Your task to perform on an android device: Go to Android settings Image 0: 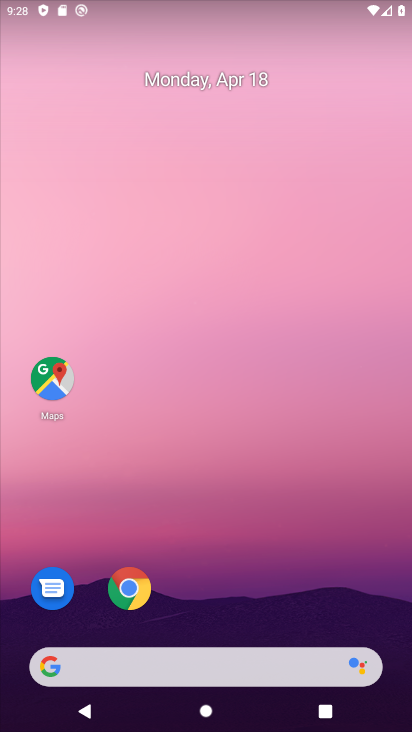
Step 0: drag from (286, 591) to (308, 68)
Your task to perform on an android device: Go to Android settings Image 1: 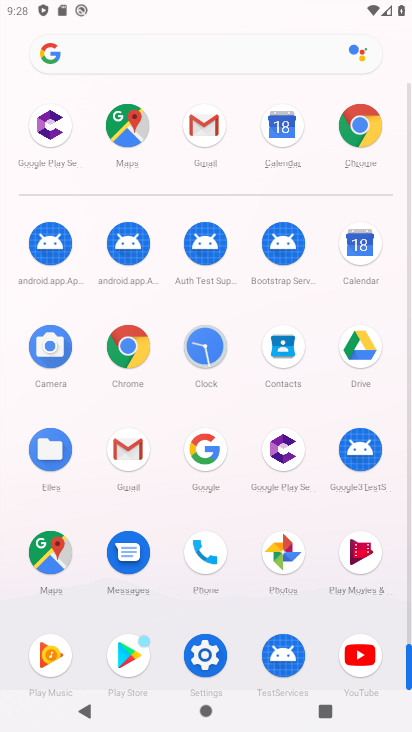
Step 1: click (214, 658)
Your task to perform on an android device: Go to Android settings Image 2: 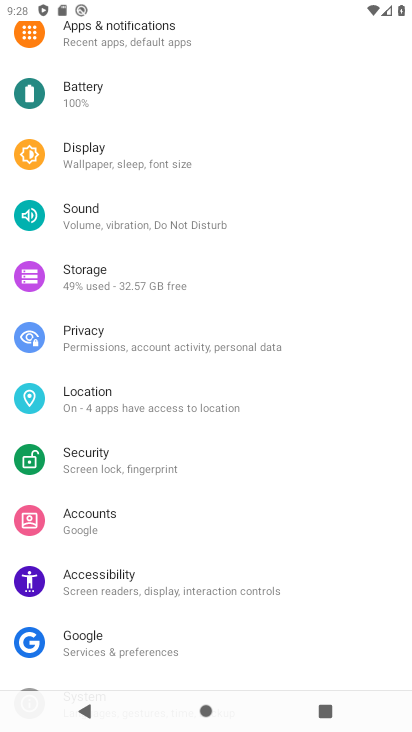
Step 2: drag from (324, 595) to (328, 188)
Your task to perform on an android device: Go to Android settings Image 3: 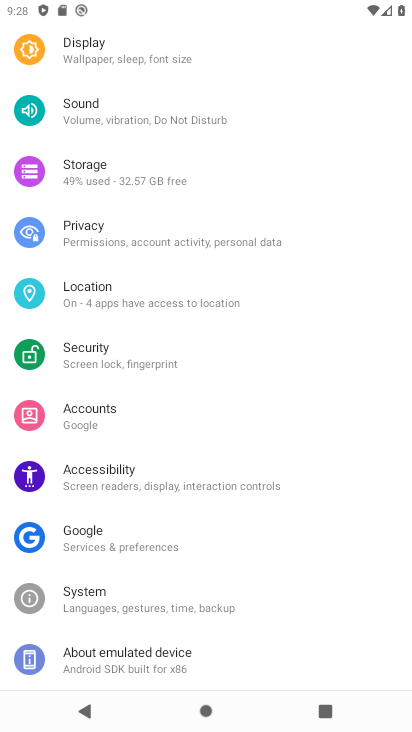
Step 3: click (141, 660)
Your task to perform on an android device: Go to Android settings Image 4: 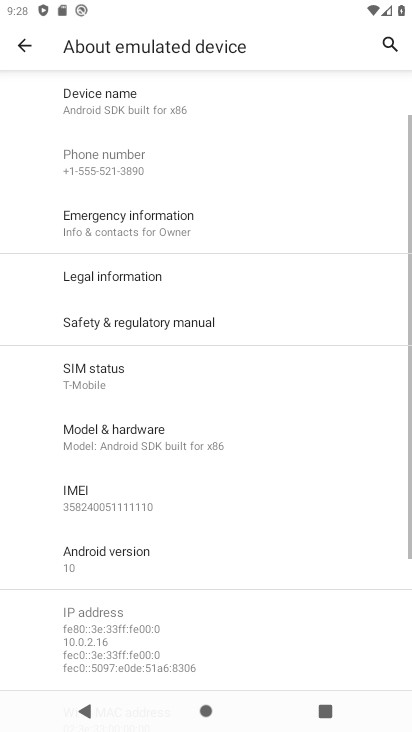
Step 4: drag from (255, 543) to (267, 348)
Your task to perform on an android device: Go to Android settings Image 5: 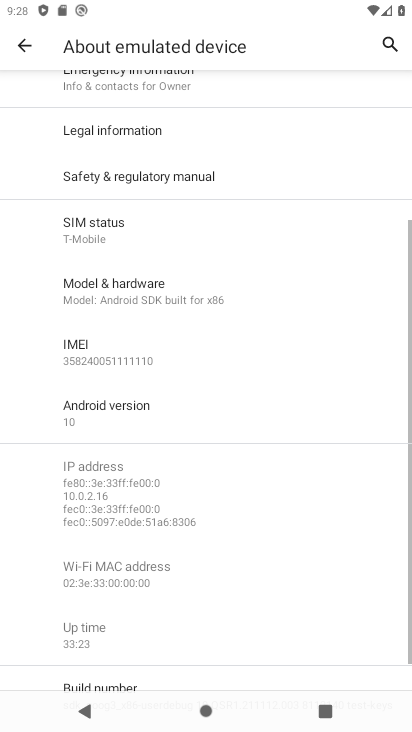
Step 5: click (118, 409)
Your task to perform on an android device: Go to Android settings Image 6: 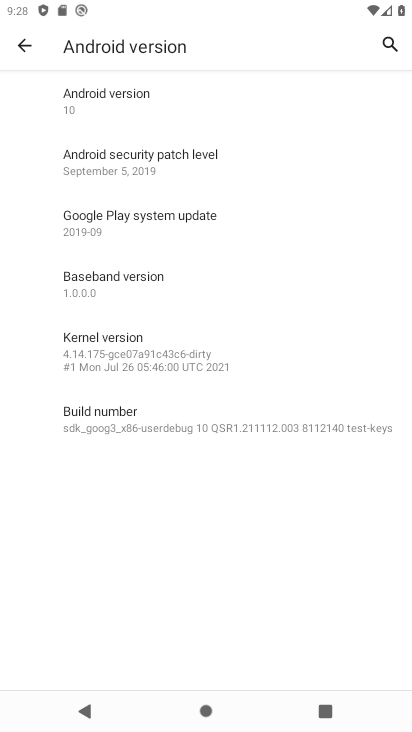
Step 6: click (95, 102)
Your task to perform on an android device: Go to Android settings Image 7: 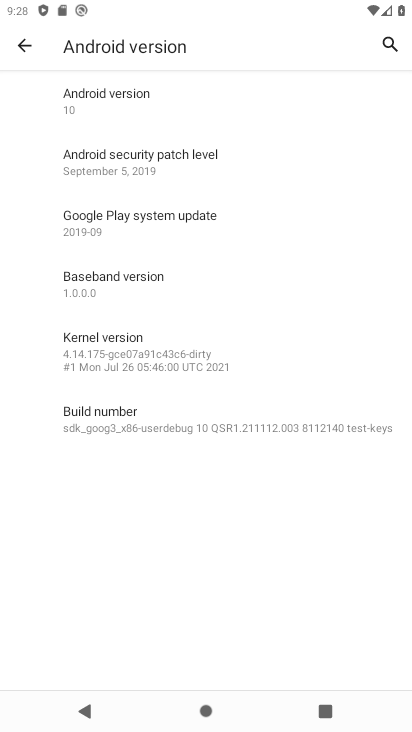
Step 7: task complete